Your task to perform on an android device: Go to location settings Image 0: 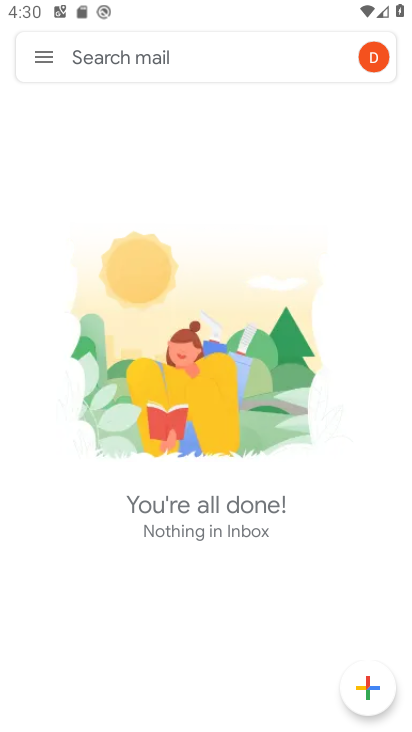
Step 0: press home button
Your task to perform on an android device: Go to location settings Image 1: 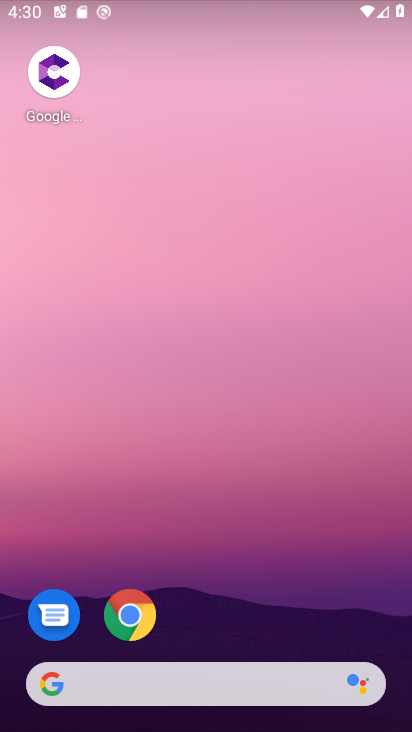
Step 1: drag from (197, 278) to (129, 44)
Your task to perform on an android device: Go to location settings Image 2: 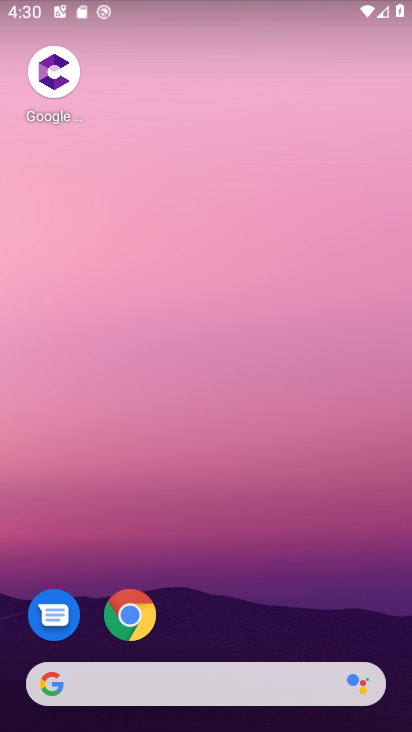
Step 2: drag from (262, 555) to (236, 1)
Your task to perform on an android device: Go to location settings Image 3: 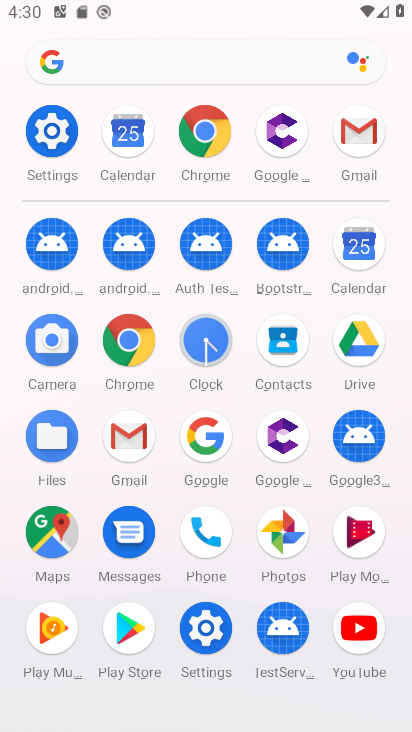
Step 3: click (45, 131)
Your task to perform on an android device: Go to location settings Image 4: 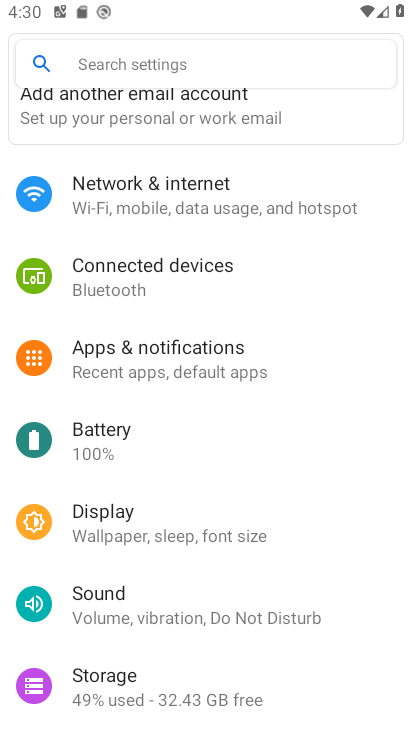
Step 4: drag from (197, 536) to (225, 185)
Your task to perform on an android device: Go to location settings Image 5: 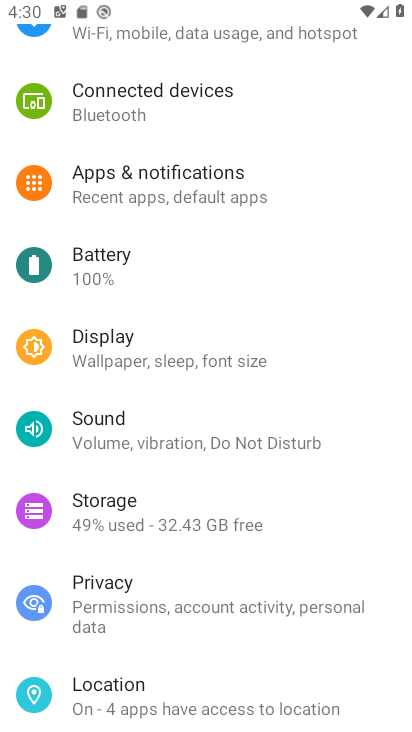
Step 5: click (195, 688)
Your task to perform on an android device: Go to location settings Image 6: 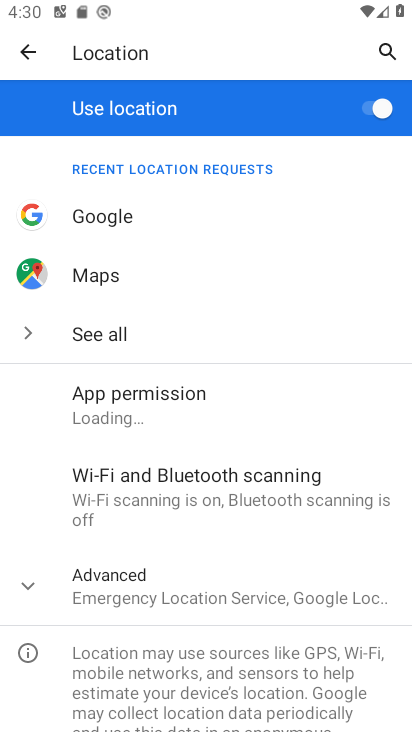
Step 6: task complete